Your task to perform on an android device: toggle pop-ups in chrome Image 0: 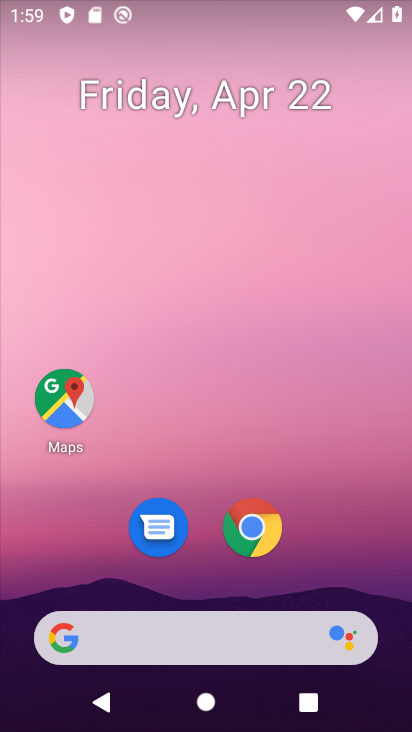
Step 0: drag from (345, 586) to (267, 101)
Your task to perform on an android device: toggle pop-ups in chrome Image 1: 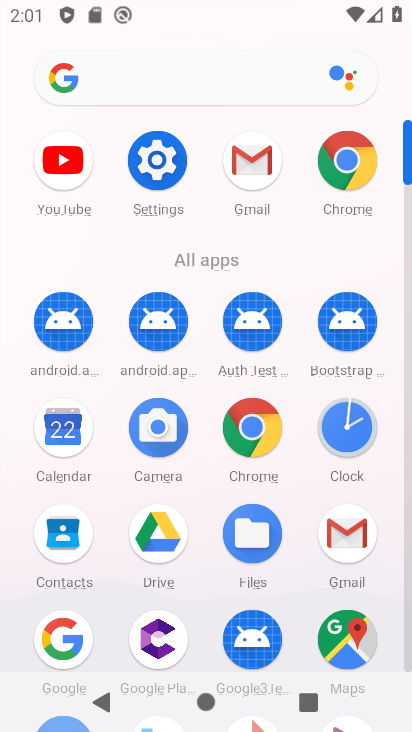
Step 1: click (255, 432)
Your task to perform on an android device: toggle pop-ups in chrome Image 2: 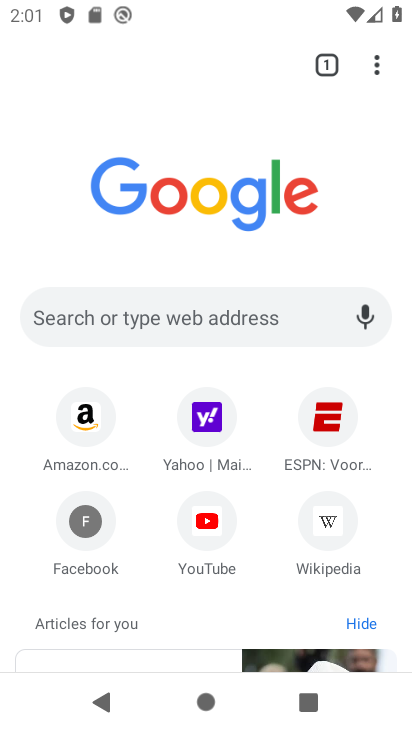
Step 2: click (378, 62)
Your task to perform on an android device: toggle pop-ups in chrome Image 3: 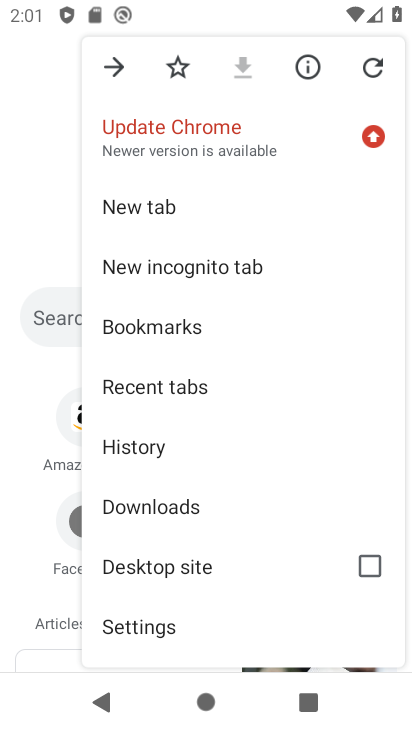
Step 3: click (172, 632)
Your task to perform on an android device: toggle pop-ups in chrome Image 4: 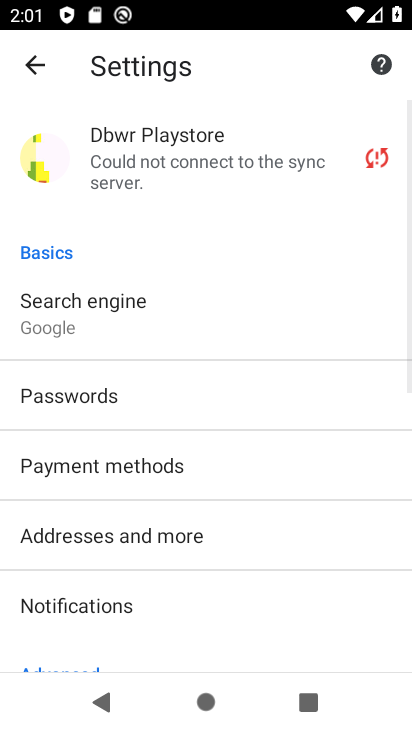
Step 4: drag from (174, 626) to (251, 287)
Your task to perform on an android device: toggle pop-ups in chrome Image 5: 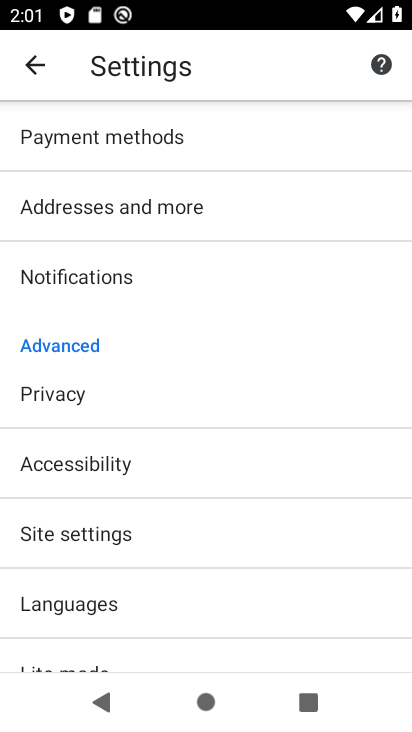
Step 5: click (144, 532)
Your task to perform on an android device: toggle pop-ups in chrome Image 6: 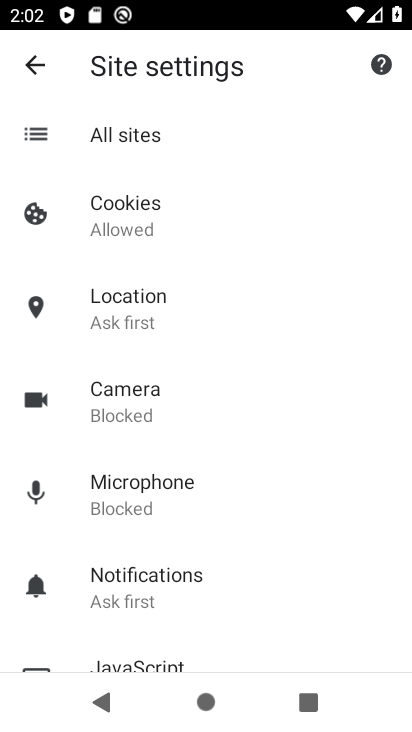
Step 6: drag from (188, 591) to (222, 398)
Your task to perform on an android device: toggle pop-ups in chrome Image 7: 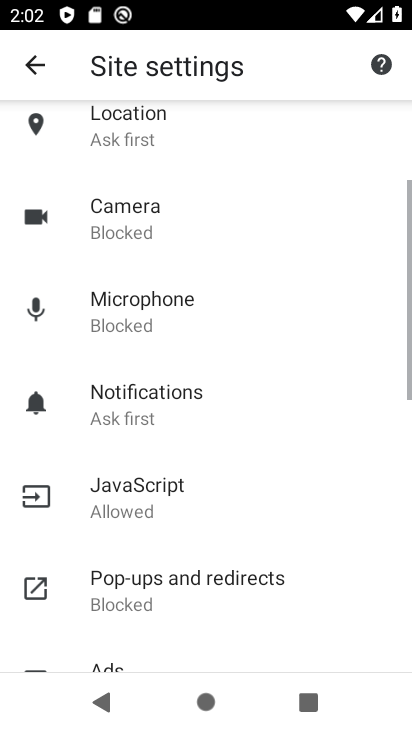
Step 7: click (191, 583)
Your task to perform on an android device: toggle pop-ups in chrome Image 8: 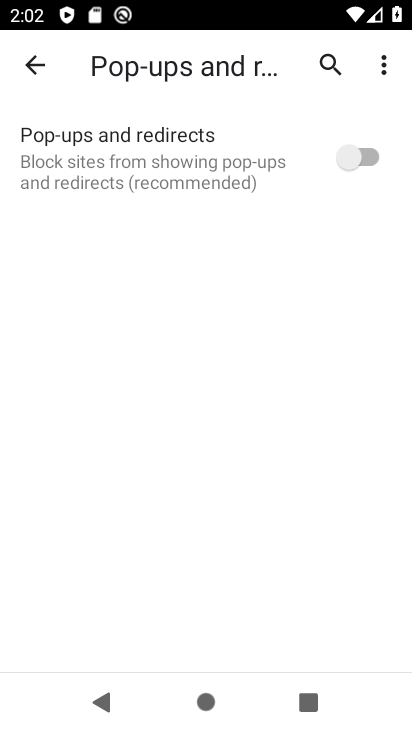
Step 8: click (358, 162)
Your task to perform on an android device: toggle pop-ups in chrome Image 9: 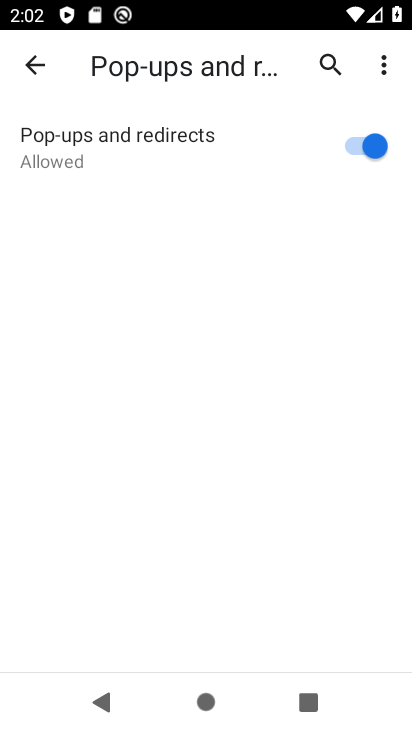
Step 9: task complete